Your task to perform on an android device: toggle translation in the chrome app Image 0: 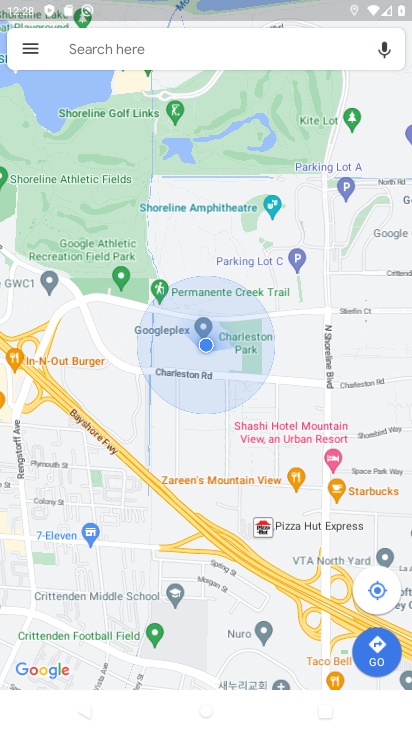
Step 0: press home button
Your task to perform on an android device: toggle translation in the chrome app Image 1: 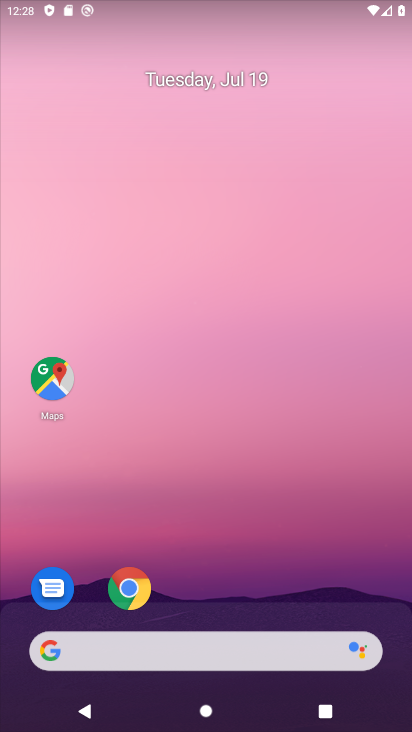
Step 1: drag from (307, 510) to (240, 89)
Your task to perform on an android device: toggle translation in the chrome app Image 2: 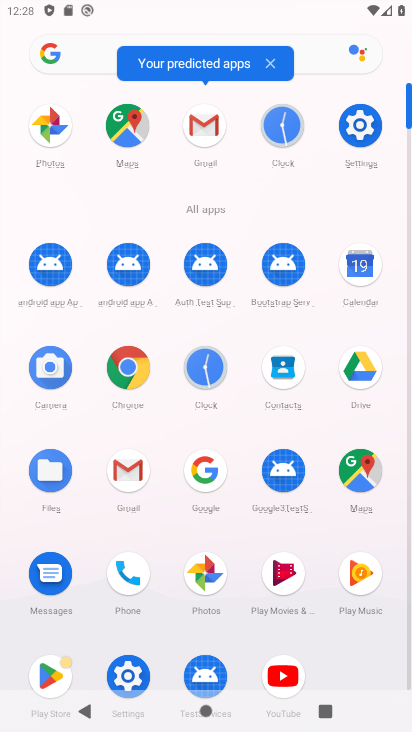
Step 2: click (139, 359)
Your task to perform on an android device: toggle translation in the chrome app Image 3: 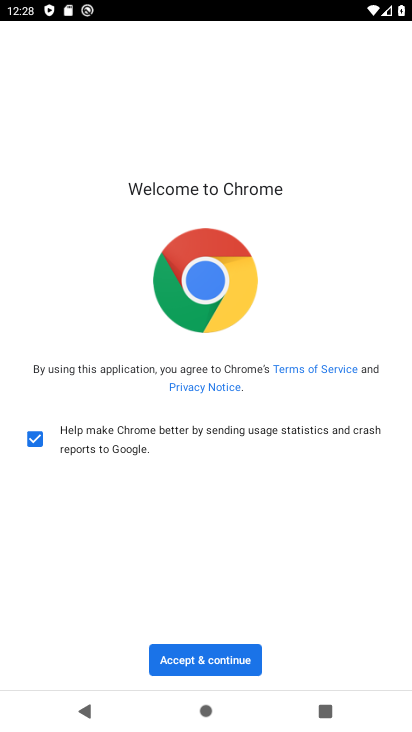
Step 3: click (226, 656)
Your task to perform on an android device: toggle translation in the chrome app Image 4: 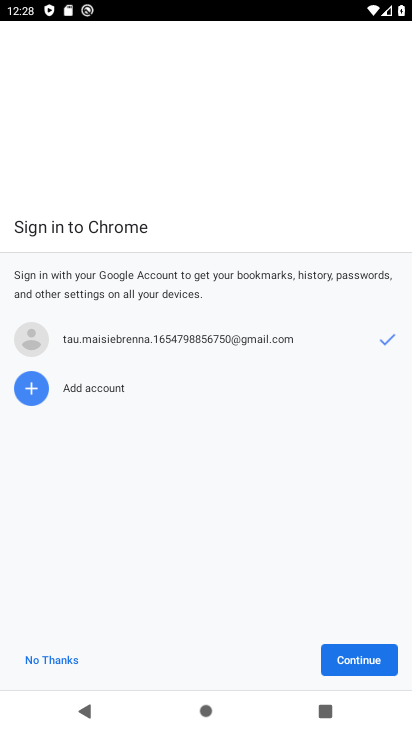
Step 4: click (52, 661)
Your task to perform on an android device: toggle translation in the chrome app Image 5: 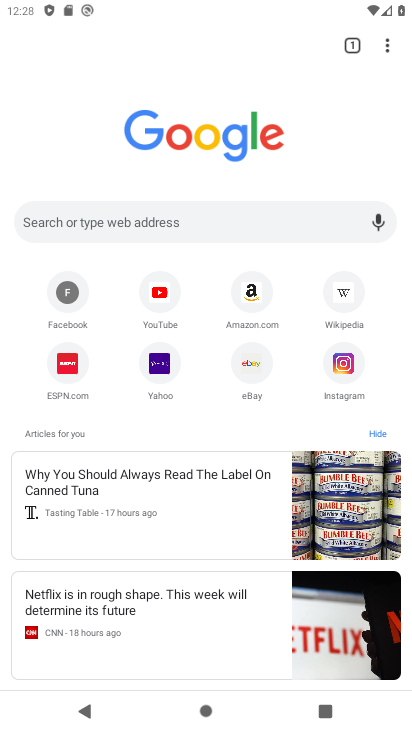
Step 5: drag from (391, 50) to (241, 378)
Your task to perform on an android device: toggle translation in the chrome app Image 6: 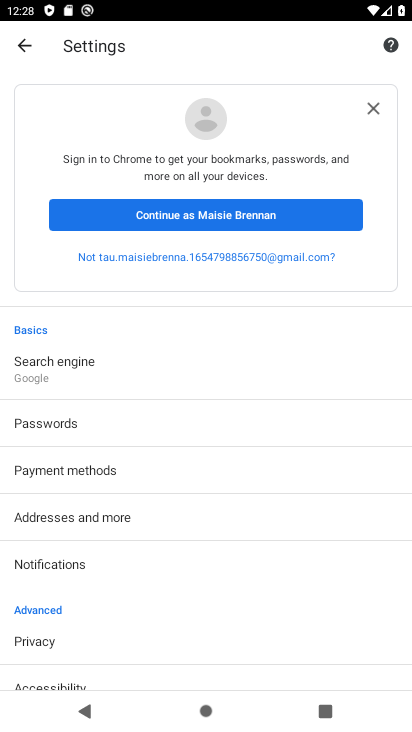
Step 6: drag from (127, 600) to (222, 188)
Your task to perform on an android device: toggle translation in the chrome app Image 7: 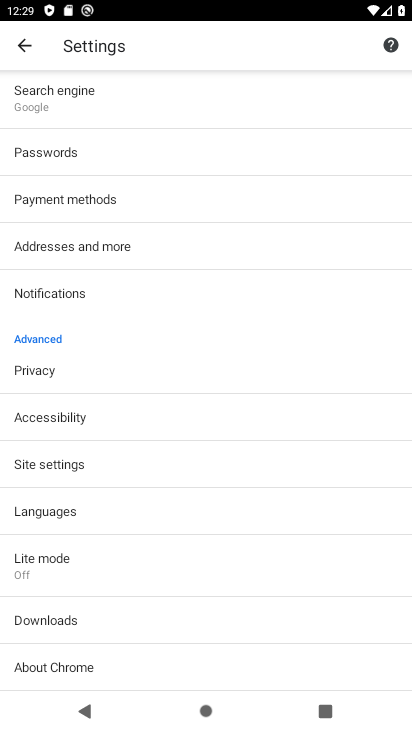
Step 7: click (76, 514)
Your task to perform on an android device: toggle translation in the chrome app Image 8: 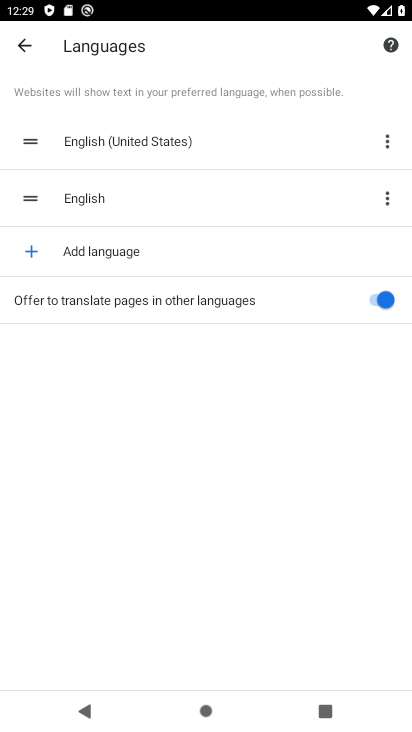
Step 8: click (378, 295)
Your task to perform on an android device: toggle translation in the chrome app Image 9: 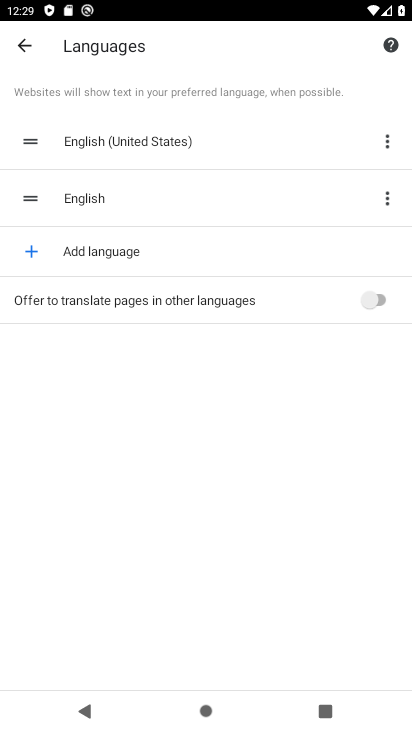
Step 9: task complete